Your task to perform on an android device: Turn off the flashlight Image 0: 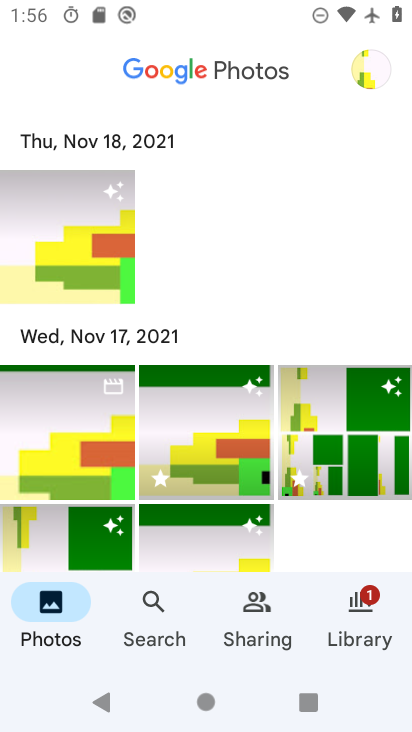
Step 0: press home button
Your task to perform on an android device: Turn off the flashlight Image 1: 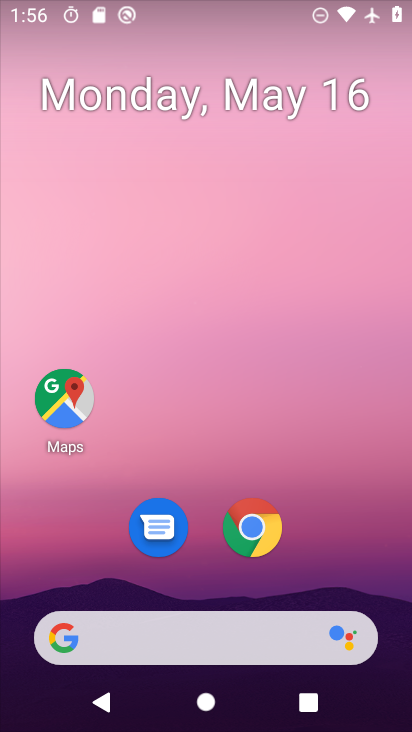
Step 1: task complete